Your task to perform on an android device: change alarm snooze length Image 0: 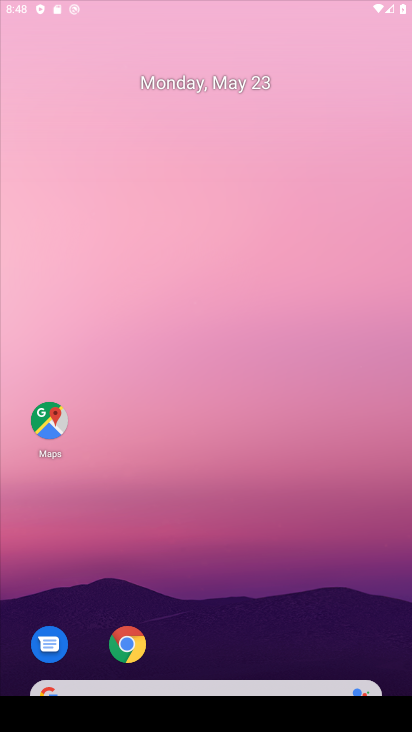
Step 0: press home button
Your task to perform on an android device: change alarm snooze length Image 1: 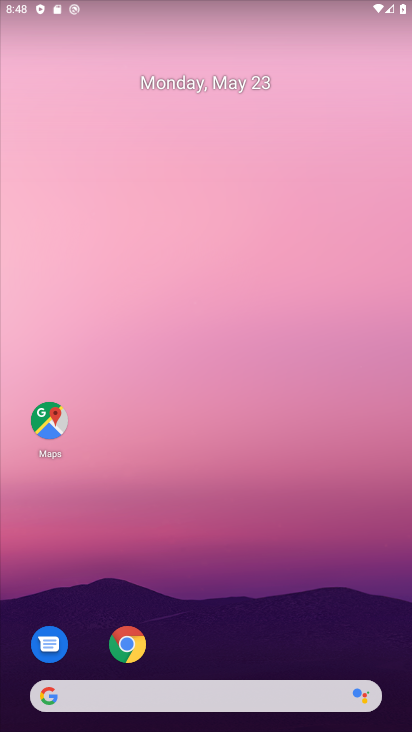
Step 1: drag from (210, 654) to (225, 95)
Your task to perform on an android device: change alarm snooze length Image 2: 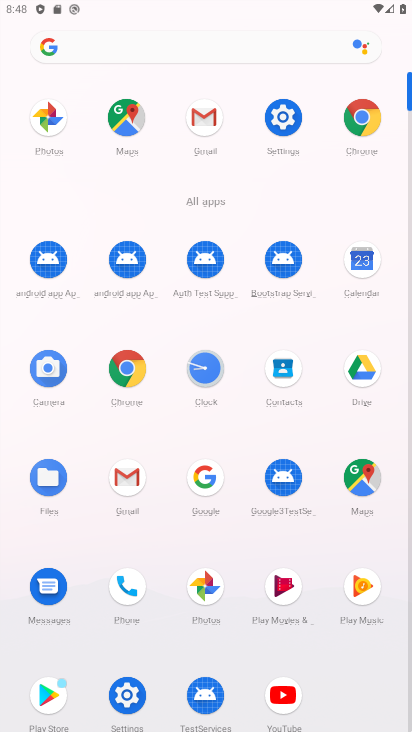
Step 2: click (198, 358)
Your task to perform on an android device: change alarm snooze length Image 3: 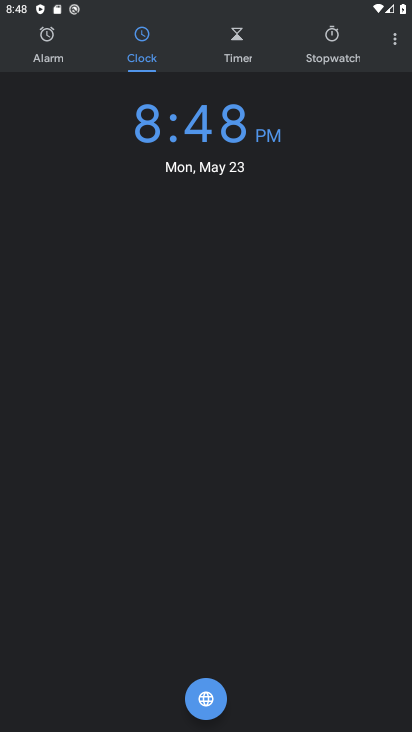
Step 3: click (391, 29)
Your task to perform on an android device: change alarm snooze length Image 4: 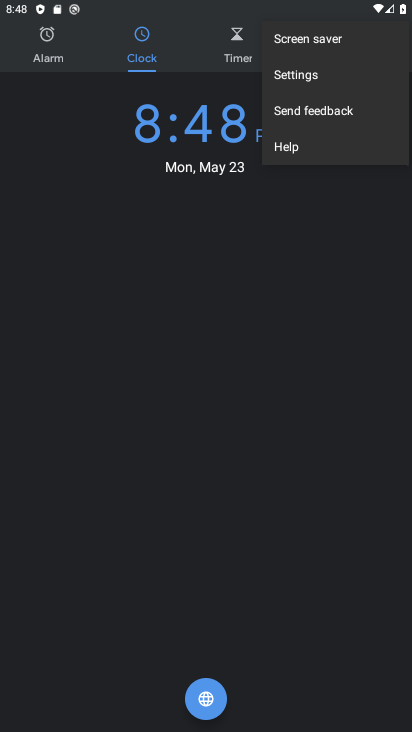
Step 4: click (325, 71)
Your task to perform on an android device: change alarm snooze length Image 5: 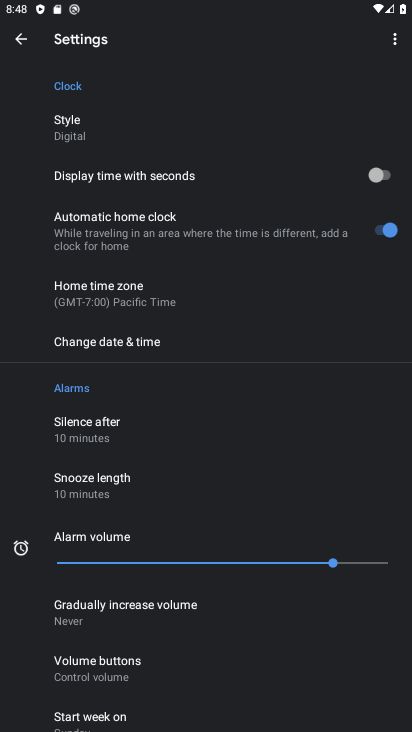
Step 5: click (146, 486)
Your task to perform on an android device: change alarm snooze length Image 6: 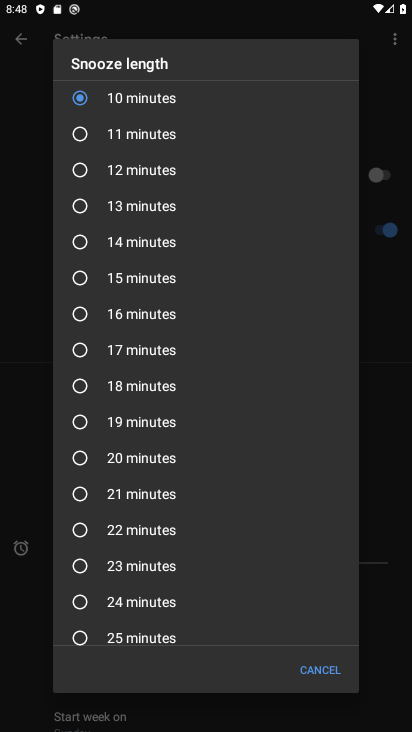
Step 6: drag from (129, 132) to (125, 464)
Your task to perform on an android device: change alarm snooze length Image 7: 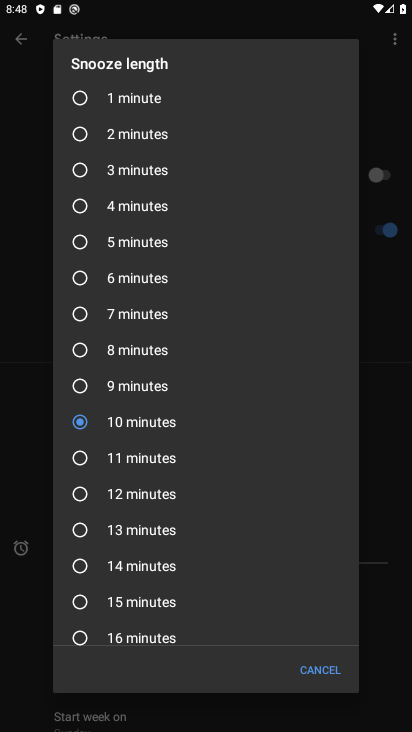
Step 7: click (81, 170)
Your task to perform on an android device: change alarm snooze length Image 8: 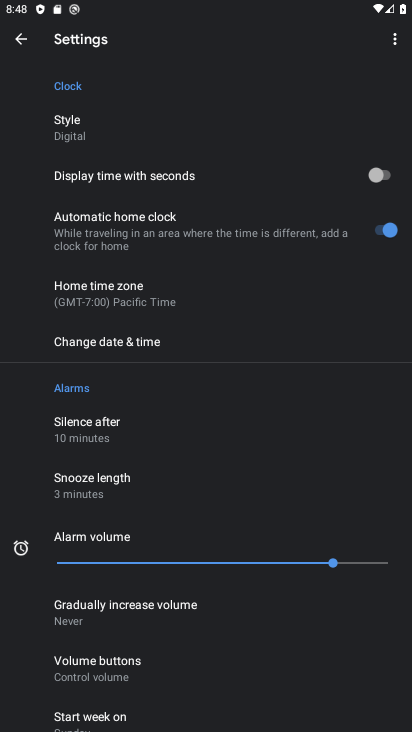
Step 8: task complete